Your task to perform on an android device: check google app version Image 0: 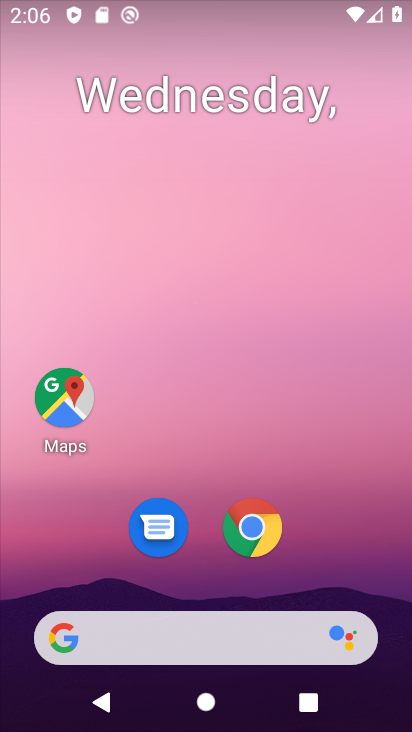
Step 0: drag from (337, 548) to (283, 84)
Your task to perform on an android device: check google app version Image 1: 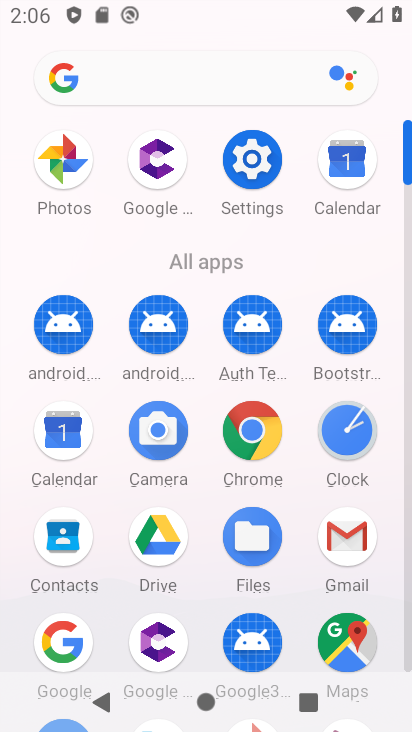
Step 1: click (53, 638)
Your task to perform on an android device: check google app version Image 2: 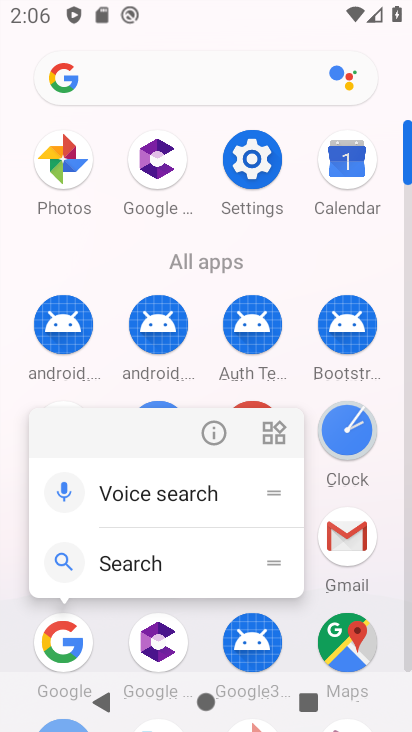
Step 2: click (215, 432)
Your task to perform on an android device: check google app version Image 3: 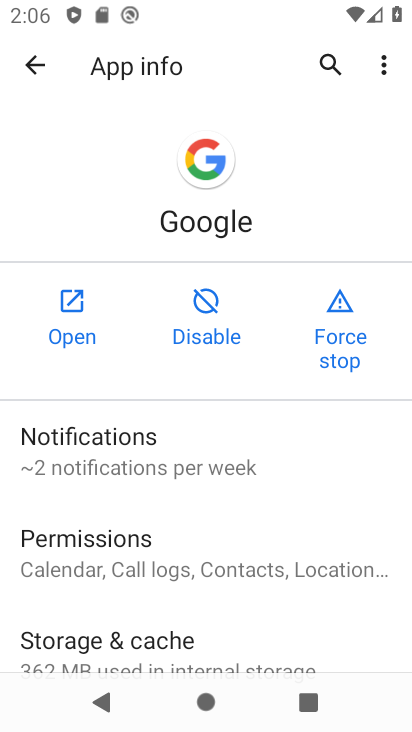
Step 3: drag from (254, 613) to (231, 398)
Your task to perform on an android device: check google app version Image 4: 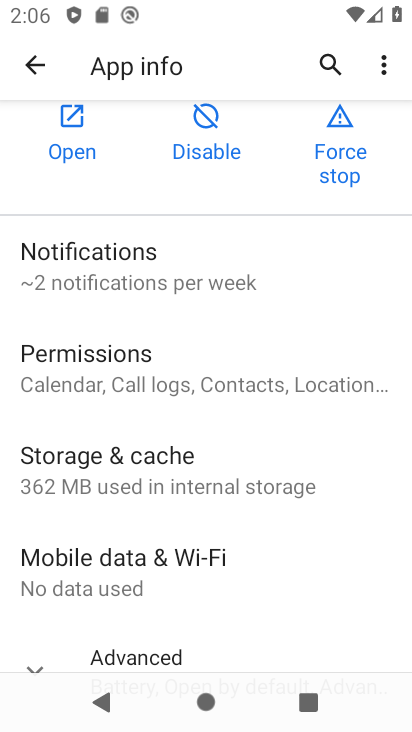
Step 4: drag from (226, 561) to (209, 397)
Your task to perform on an android device: check google app version Image 5: 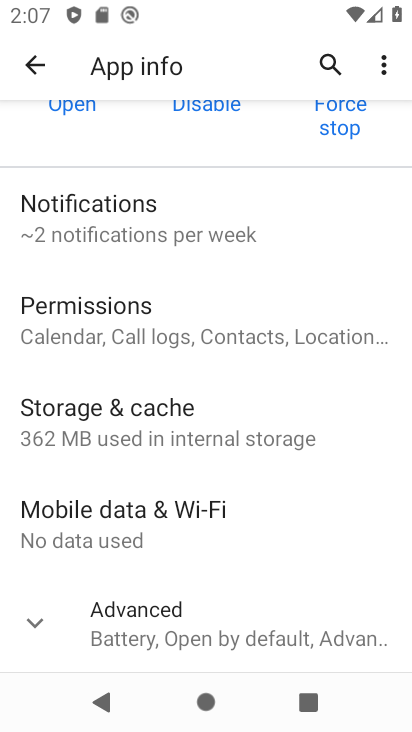
Step 5: click (203, 634)
Your task to perform on an android device: check google app version Image 6: 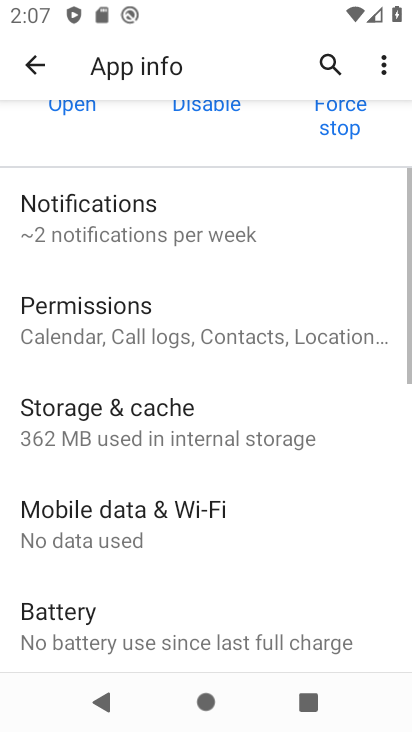
Step 6: task complete